Your task to perform on an android device: turn off improve location accuracy Image 0: 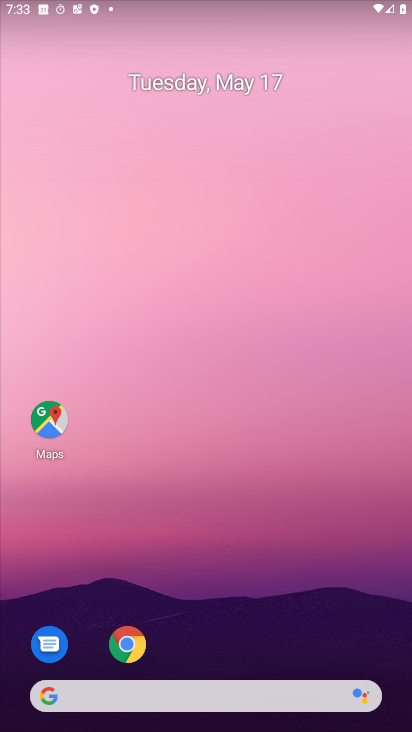
Step 0: drag from (350, 629) to (337, 6)
Your task to perform on an android device: turn off improve location accuracy Image 1: 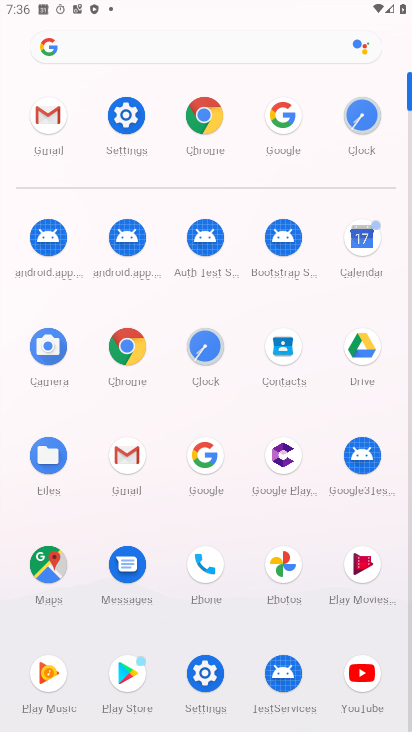
Step 1: click (121, 120)
Your task to perform on an android device: turn off improve location accuracy Image 2: 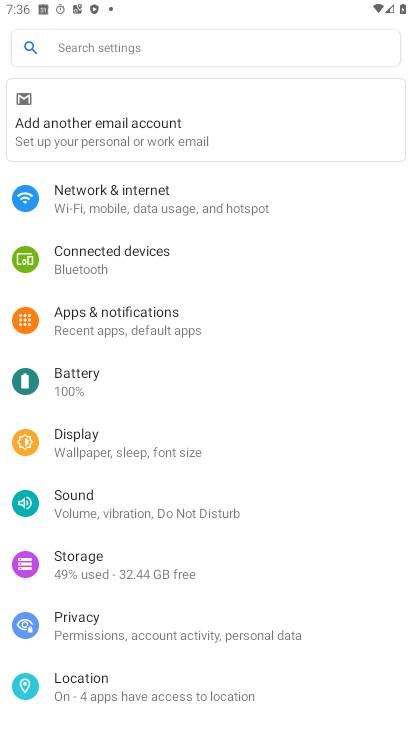
Step 2: click (105, 682)
Your task to perform on an android device: turn off improve location accuracy Image 3: 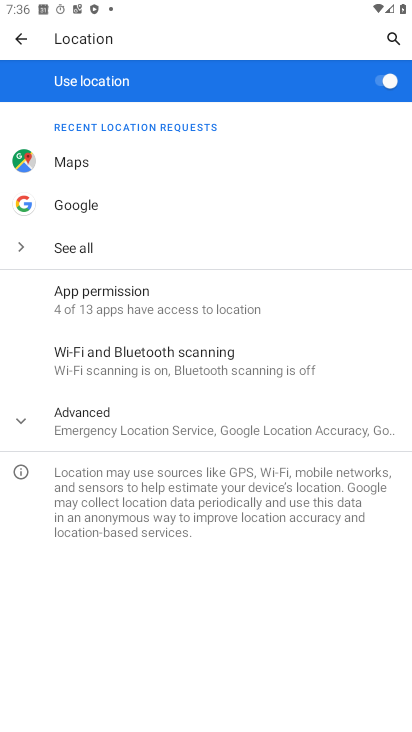
Step 3: click (186, 429)
Your task to perform on an android device: turn off improve location accuracy Image 4: 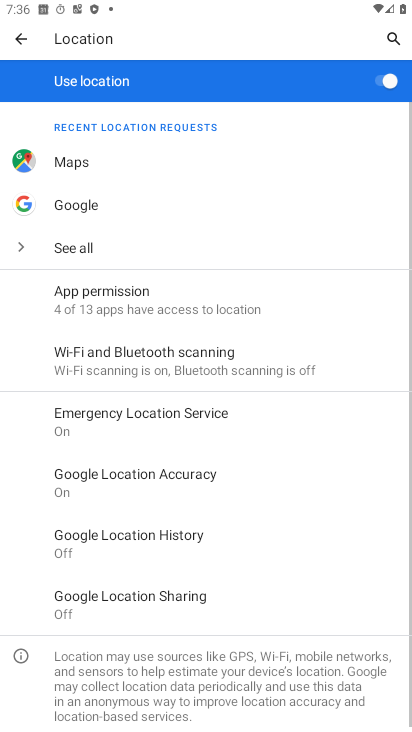
Step 4: click (172, 471)
Your task to perform on an android device: turn off improve location accuracy Image 5: 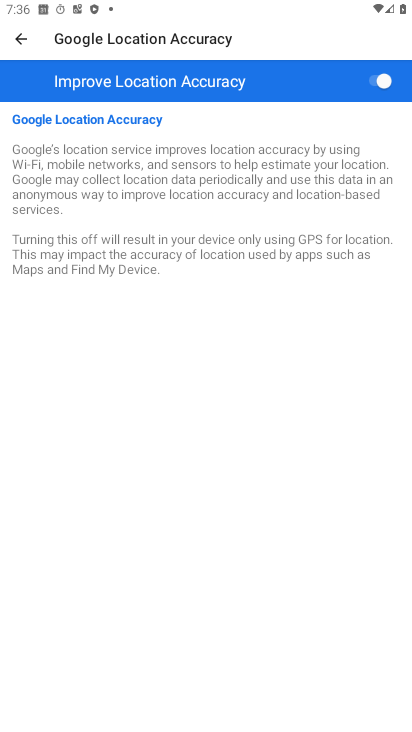
Step 5: click (348, 78)
Your task to perform on an android device: turn off improve location accuracy Image 6: 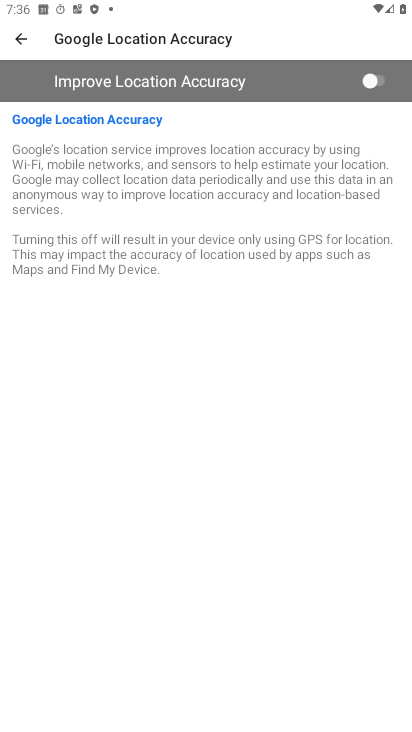
Step 6: task complete